Your task to perform on an android device: Do I have any events today? Image 0: 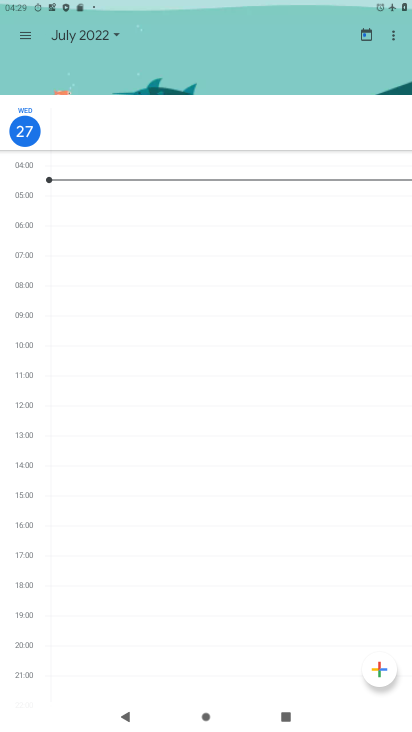
Step 0: press home button
Your task to perform on an android device: Do I have any events today? Image 1: 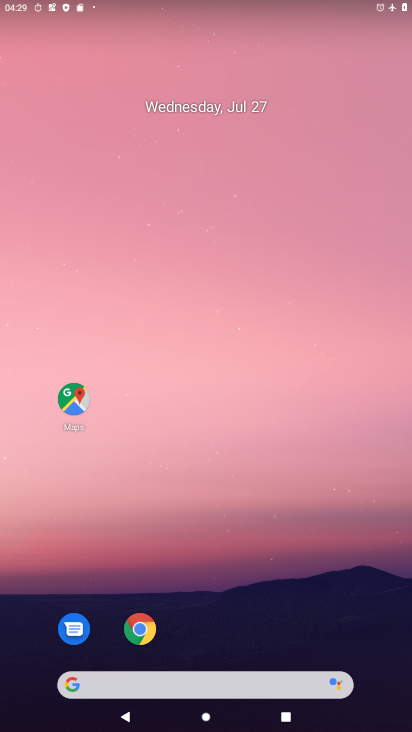
Step 1: drag from (222, 506) to (226, 34)
Your task to perform on an android device: Do I have any events today? Image 2: 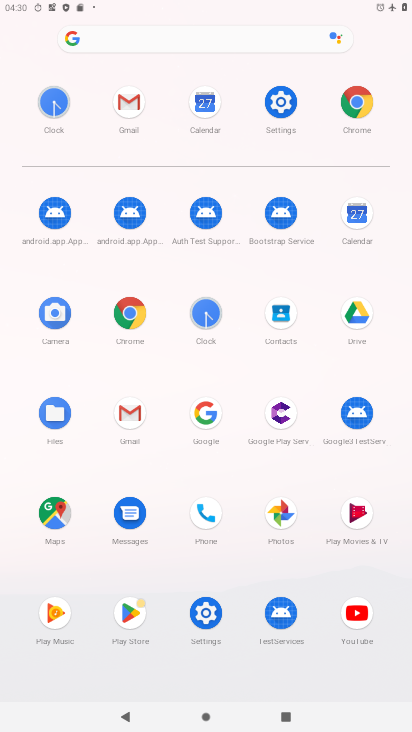
Step 2: click (353, 214)
Your task to perform on an android device: Do I have any events today? Image 3: 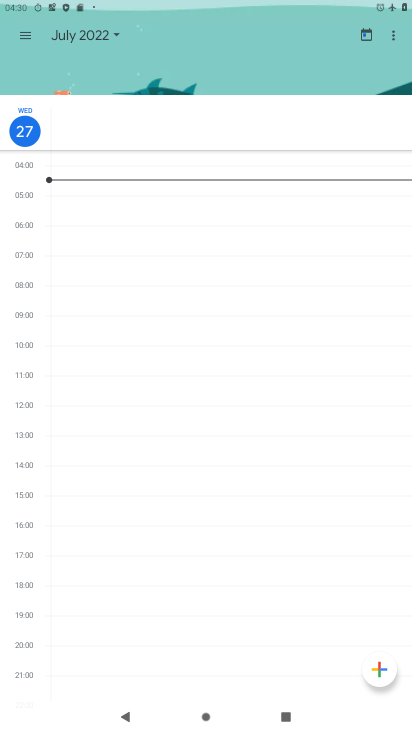
Step 3: task complete